Your task to perform on an android device: turn pop-ups on in chrome Image 0: 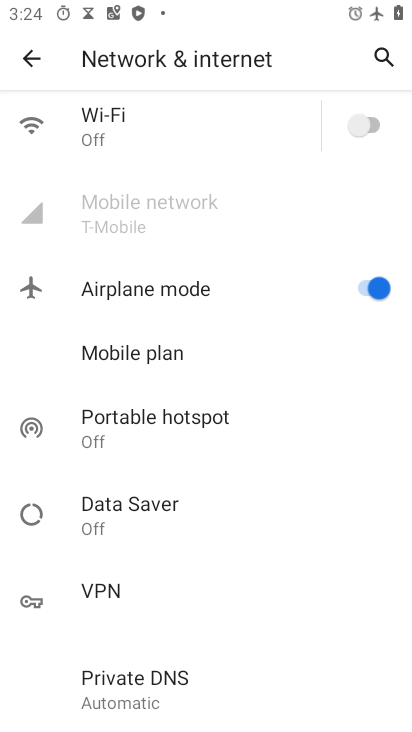
Step 0: press back button
Your task to perform on an android device: turn pop-ups on in chrome Image 1: 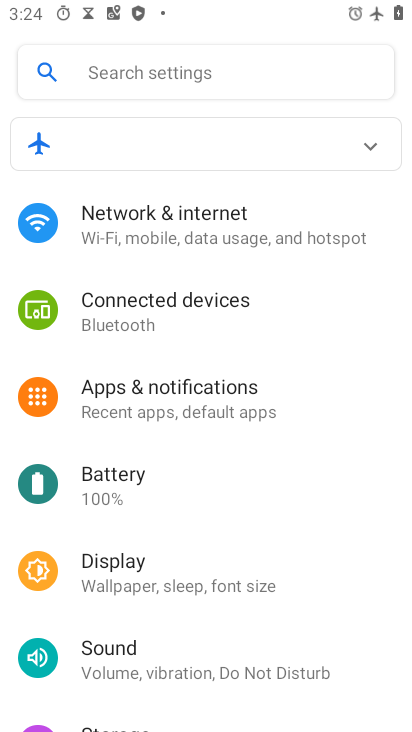
Step 1: press home button
Your task to perform on an android device: turn pop-ups on in chrome Image 2: 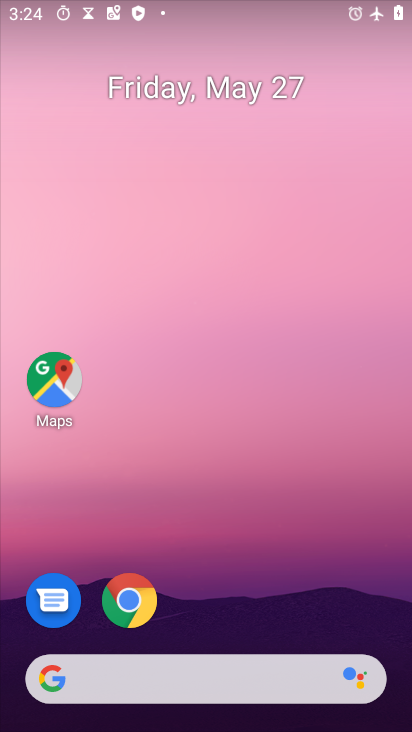
Step 2: drag from (199, 342) to (177, 8)
Your task to perform on an android device: turn pop-ups on in chrome Image 3: 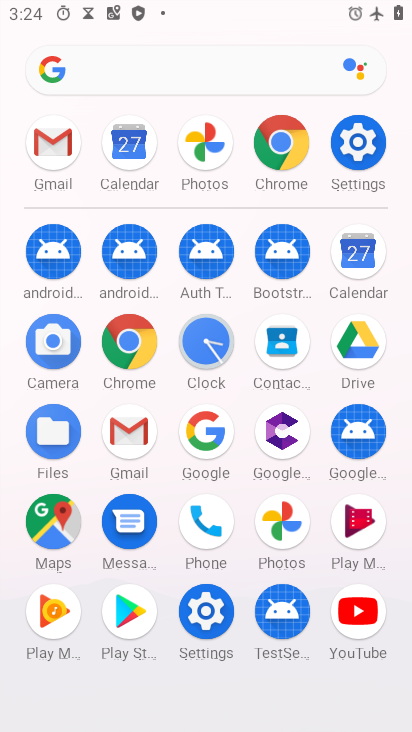
Step 3: click (125, 338)
Your task to perform on an android device: turn pop-ups on in chrome Image 4: 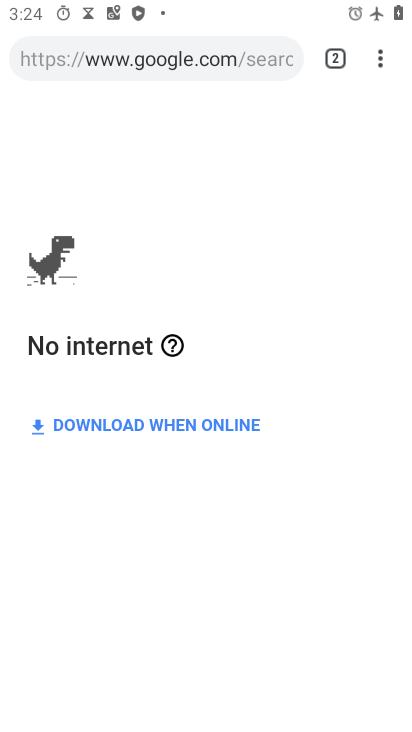
Step 4: drag from (382, 62) to (215, 620)
Your task to perform on an android device: turn pop-ups on in chrome Image 5: 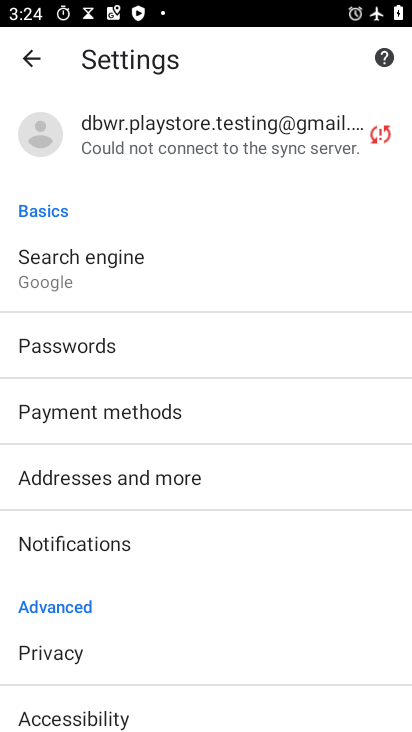
Step 5: drag from (213, 616) to (198, 196)
Your task to perform on an android device: turn pop-ups on in chrome Image 6: 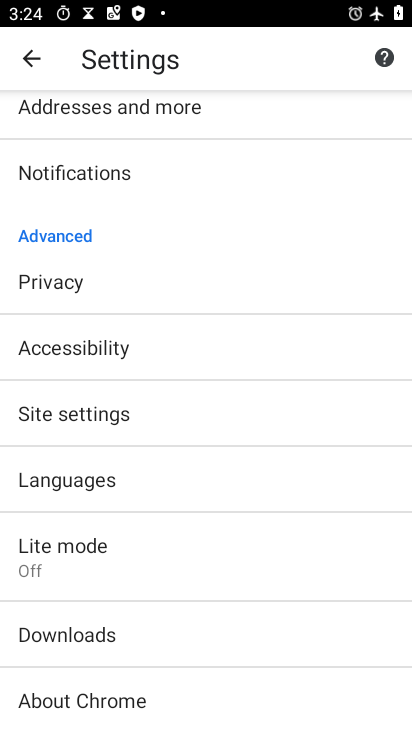
Step 6: click (105, 398)
Your task to perform on an android device: turn pop-ups on in chrome Image 7: 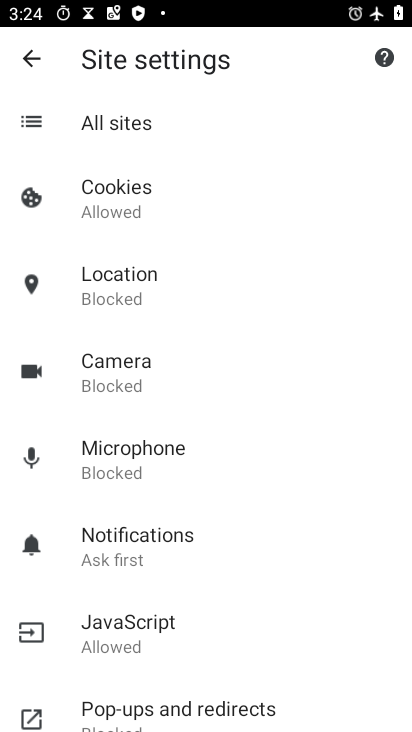
Step 7: click (192, 702)
Your task to perform on an android device: turn pop-ups on in chrome Image 8: 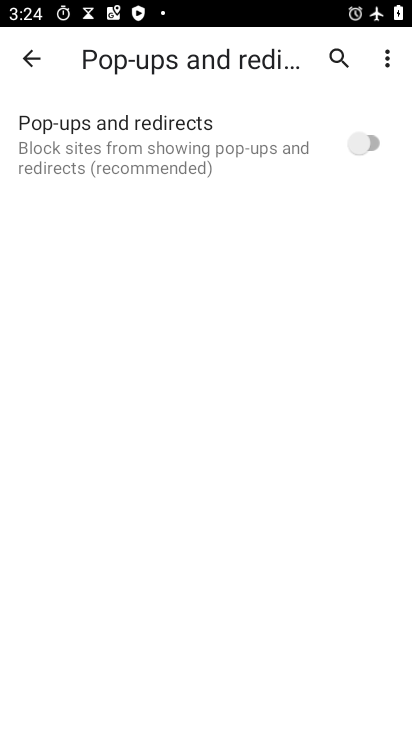
Step 8: click (366, 131)
Your task to perform on an android device: turn pop-ups on in chrome Image 9: 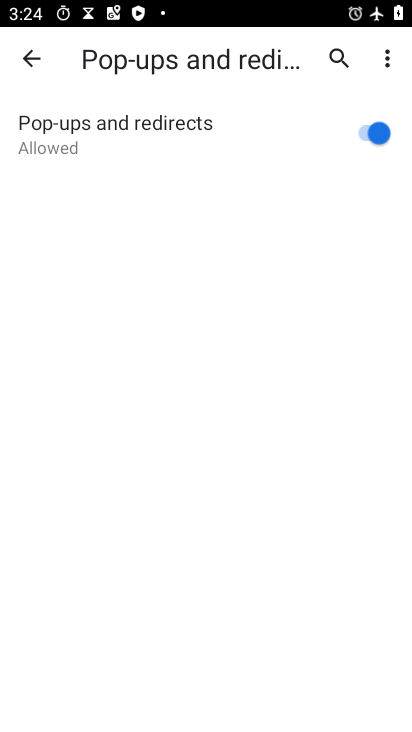
Step 9: task complete